Your task to perform on an android device: open sync settings in chrome Image 0: 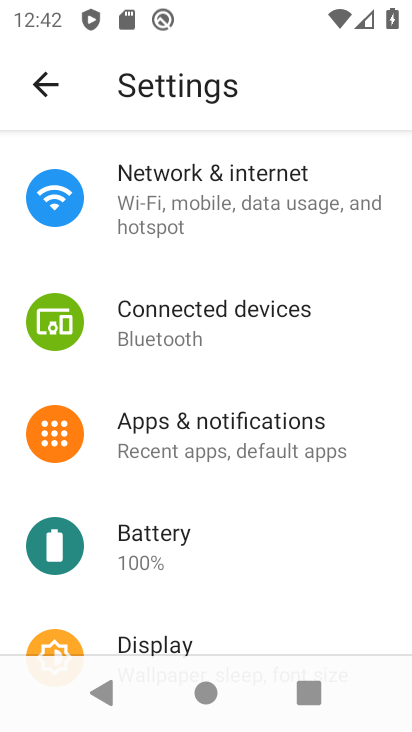
Step 0: press home button
Your task to perform on an android device: open sync settings in chrome Image 1: 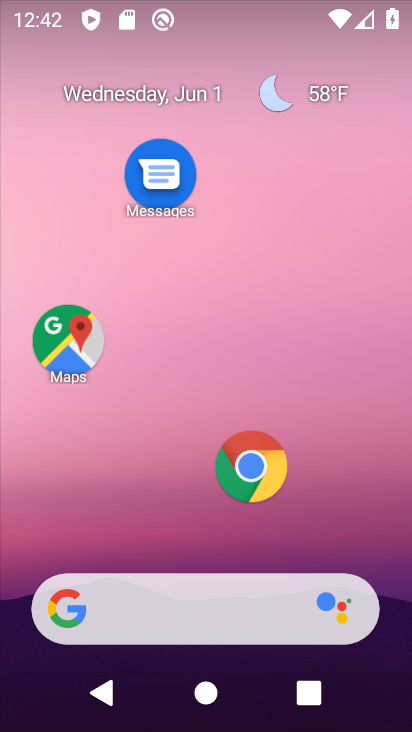
Step 1: click (252, 466)
Your task to perform on an android device: open sync settings in chrome Image 2: 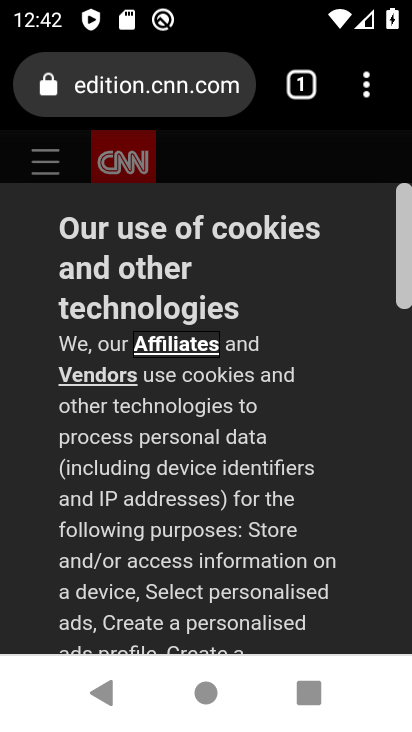
Step 2: click (370, 85)
Your task to perform on an android device: open sync settings in chrome Image 3: 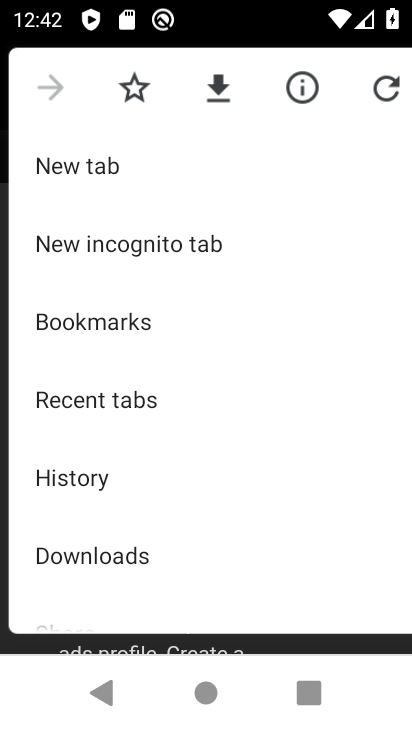
Step 3: drag from (212, 528) to (201, 168)
Your task to perform on an android device: open sync settings in chrome Image 4: 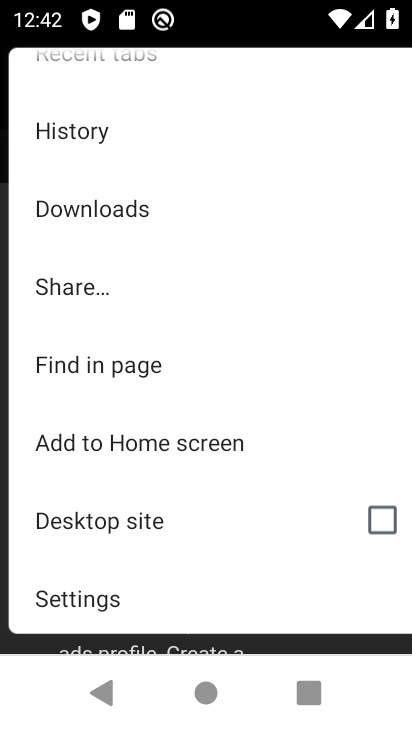
Step 4: click (89, 603)
Your task to perform on an android device: open sync settings in chrome Image 5: 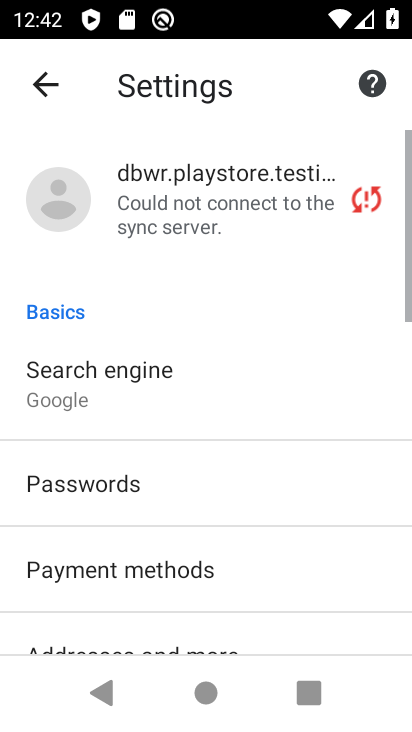
Step 5: drag from (286, 504) to (282, 212)
Your task to perform on an android device: open sync settings in chrome Image 6: 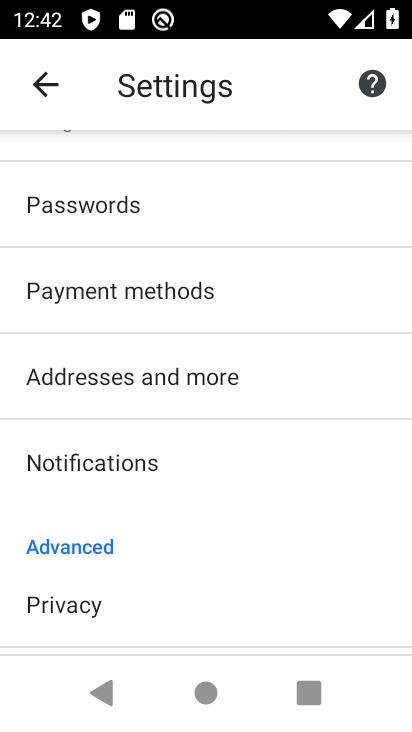
Step 6: drag from (252, 604) to (247, 228)
Your task to perform on an android device: open sync settings in chrome Image 7: 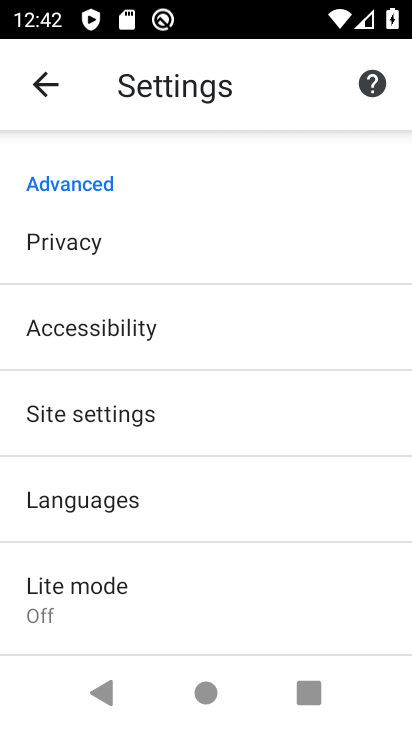
Step 7: click (138, 420)
Your task to perform on an android device: open sync settings in chrome Image 8: 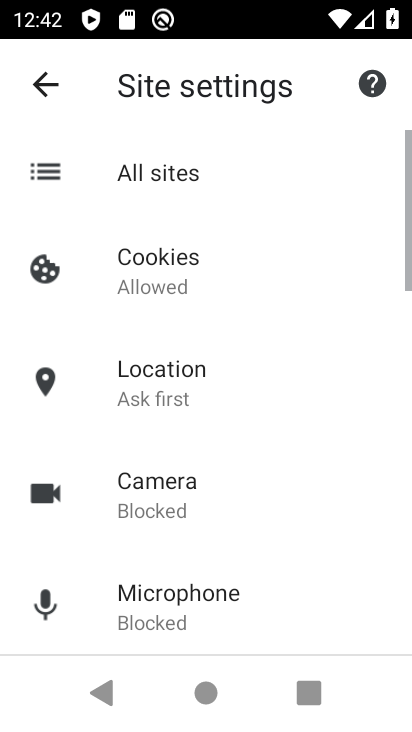
Step 8: drag from (264, 595) to (270, 234)
Your task to perform on an android device: open sync settings in chrome Image 9: 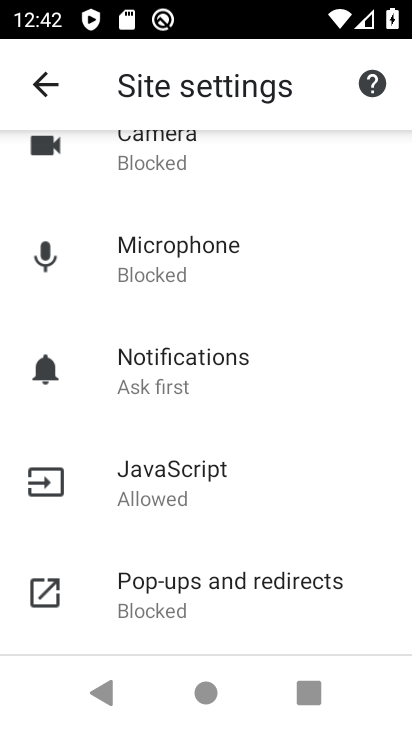
Step 9: drag from (241, 578) to (262, 254)
Your task to perform on an android device: open sync settings in chrome Image 10: 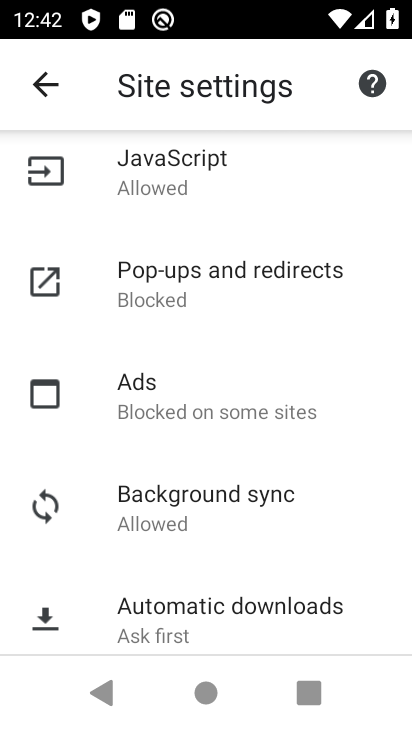
Step 10: drag from (205, 570) to (240, 232)
Your task to perform on an android device: open sync settings in chrome Image 11: 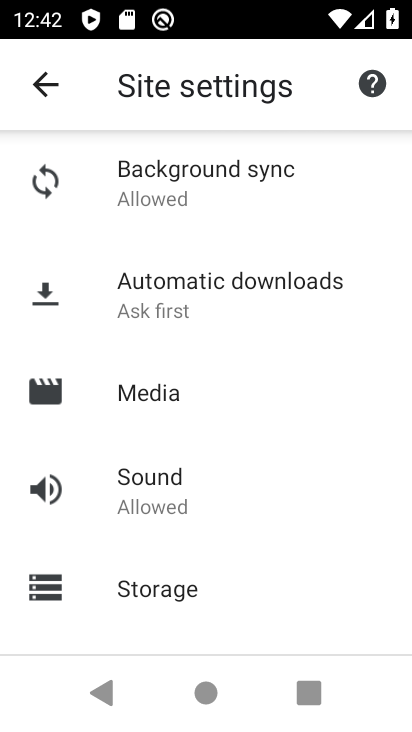
Step 11: drag from (203, 600) to (249, 236)
Your task to perform on an android device: open sync settings in chrome Image 12: 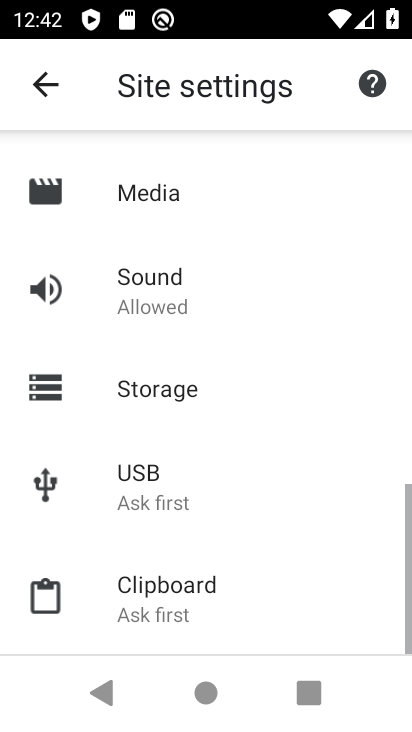
Step 12: drag from (249, 249) to (192, 566)
Your task to perform on an android device: open sync settings in chrome Image 13: 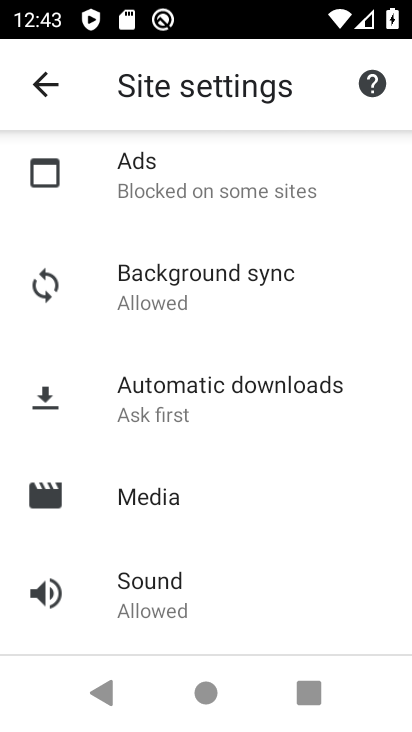
Step 13: click (255, 289)
Your task to perform on an android device: open sync settings in chrome Image 14: 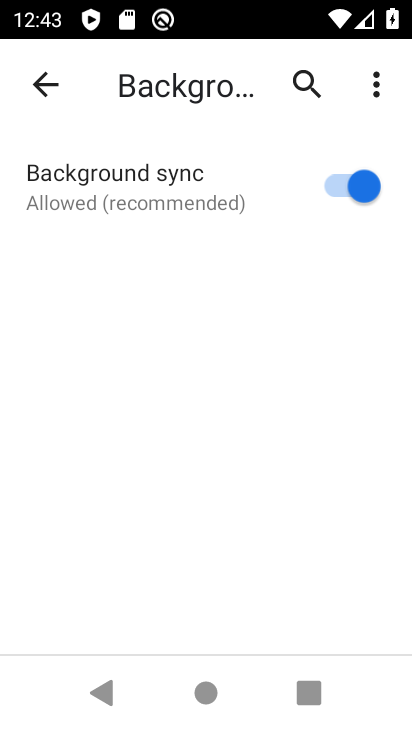
Step 14: task complete